Your task to perform on an android device: Go to Reddit.com Image 0: 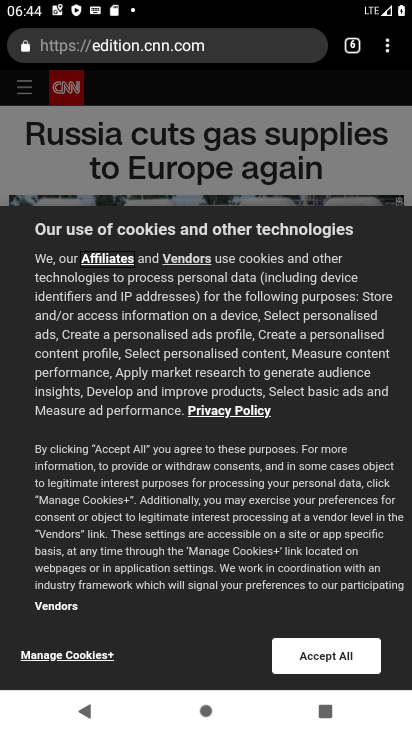
Step 0: press home button
Your task to perform on an android device: Go to Reddit.com Image 1: 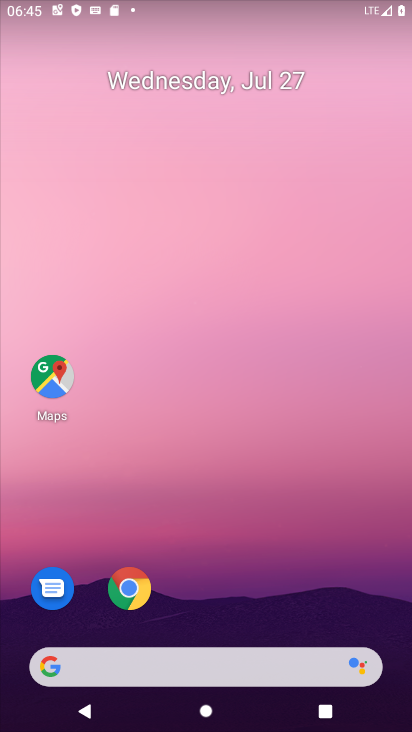
Step 1: drag from (274, 615) to (321, 60)
Your task to perform on an android device: Go to Reddit.com Image 2: 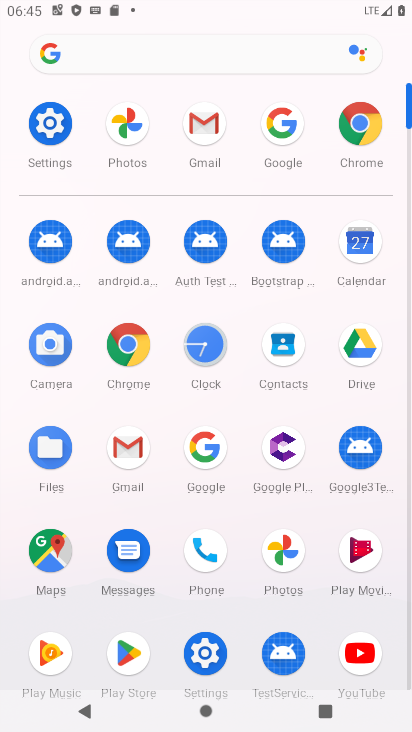
Step 2: click (122, 340)
Your task to perform on an android device: Go to Reddit.com Image 3: 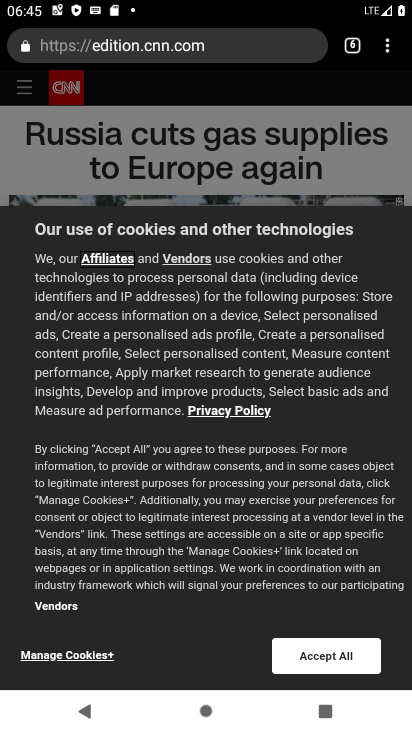
Step 3: click (183, 57)
Your task to perform on an android device: Go to Reddit.com Image 4: 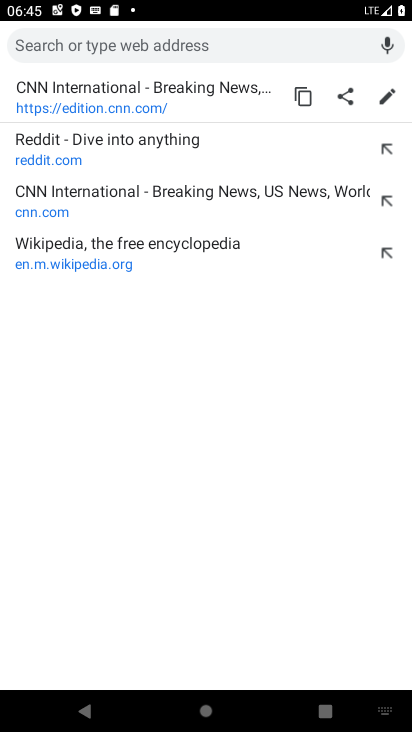
Step 4: click (182, 148)
Your task to perform on an android device: Go to Reddit.com Image 5: 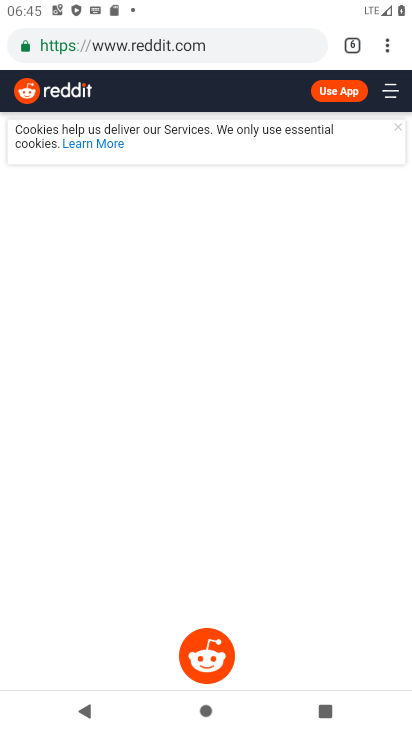
Step 5: task complete